Your task to perform on an android device: turn notification dots off Image 0: 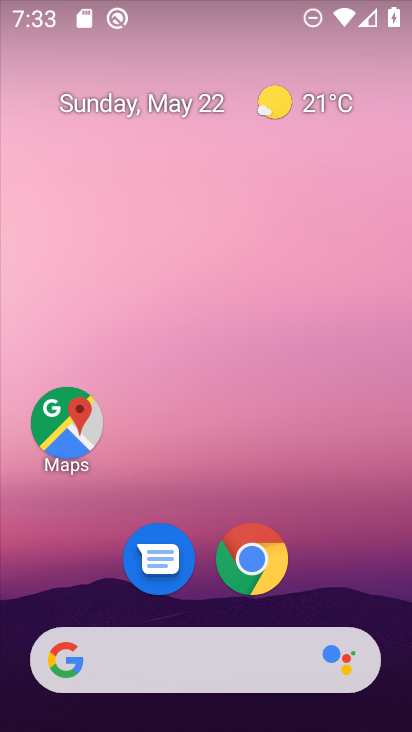
Step 0: drag from (224, 689) to (275, 188)
Your task to perform on an android device: turn notification dots off Image 1: 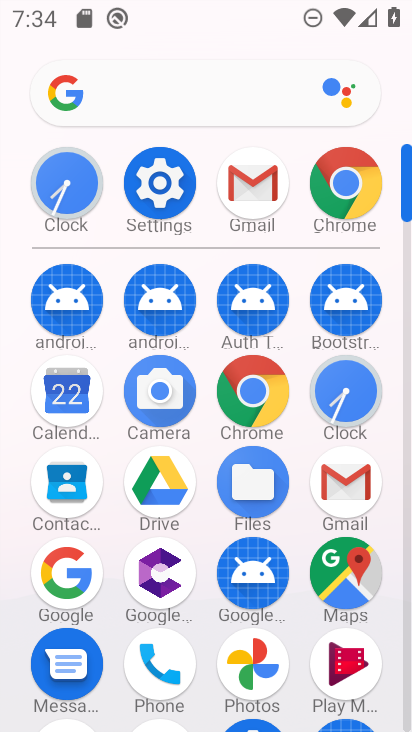
Step 1: click (165, 187)
Your task to perform on an android device: turn notification dots off Image 2: 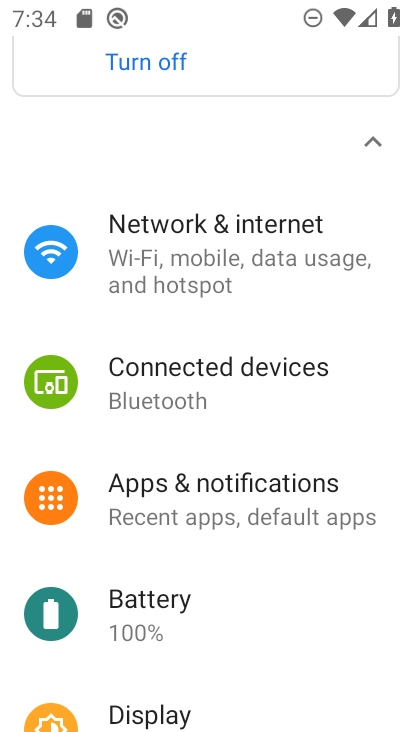
Step 2: drag from (180, 155) to (265, 389)
Your task to perform on an android device: turn notification dots off Image 3: 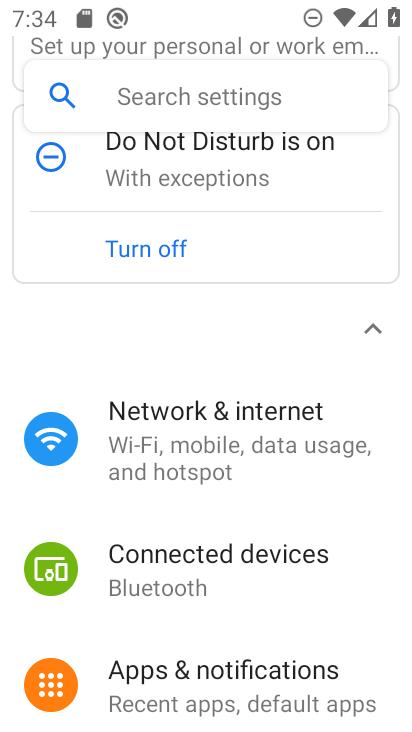
Step 3: click (170, 103)
Your task to perform on an android device: turn notification dots off Image 4: 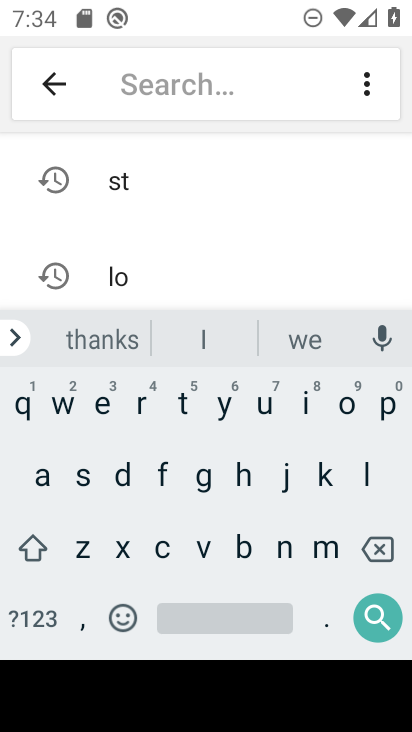
Step 4: click (122, 471)
Your task to perform on an android device: turn notification dots off Image 5: 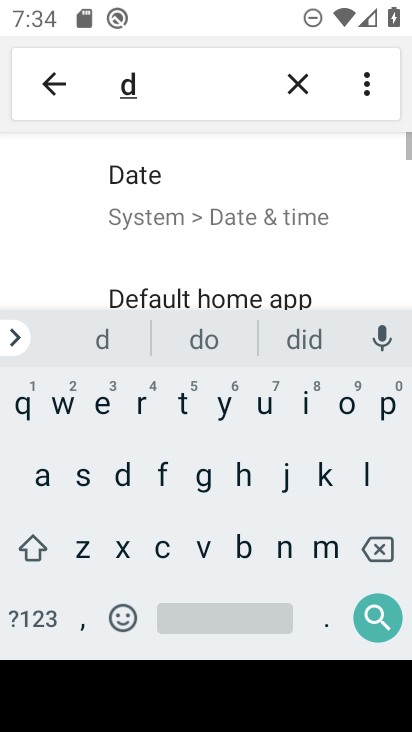
Step 5: click (350, 405)
Your task to perform on an android device: turn notification dots off Image 6: 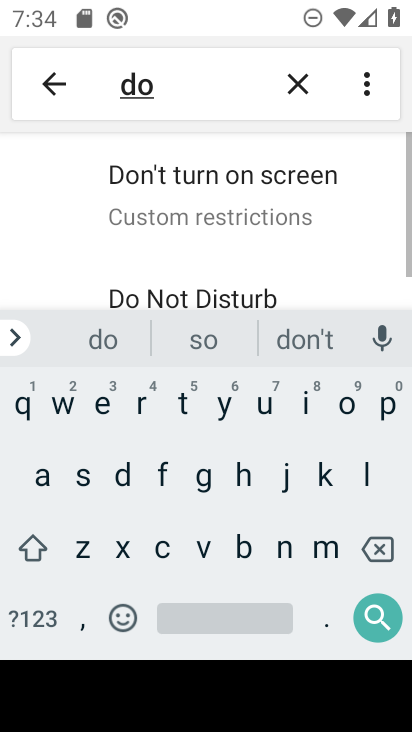
Step 6: click (182, 415)
Your task to perform on an android device: turn notification dots off Image 7: 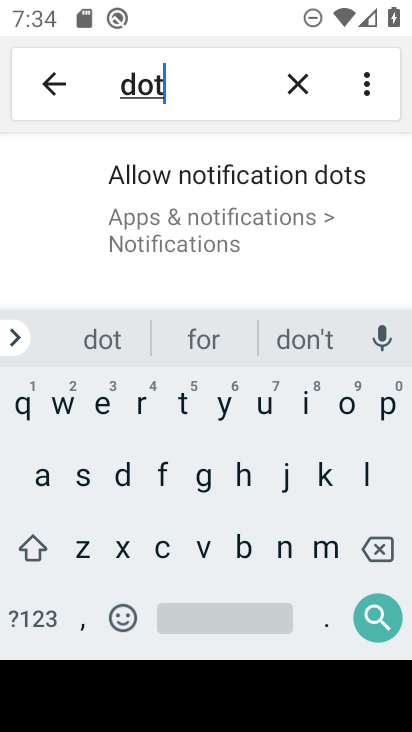
Step 7: click (261, 219)
Your task to perform on an android device: turn notification dots off Image 8: 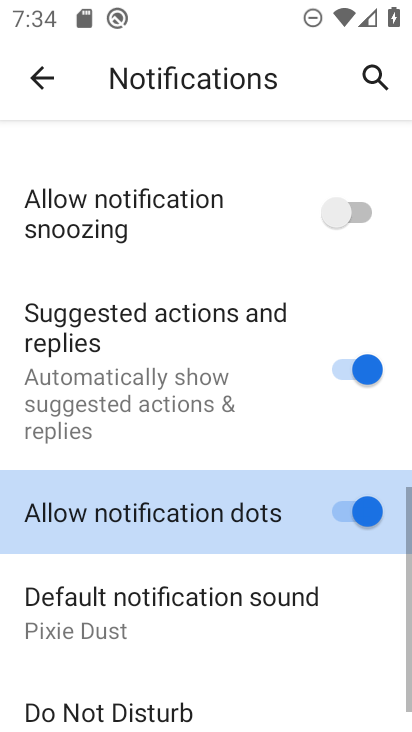
Step 8: click (372, 518)
Your task to perform on an android device: turn notification dots off Image 9: 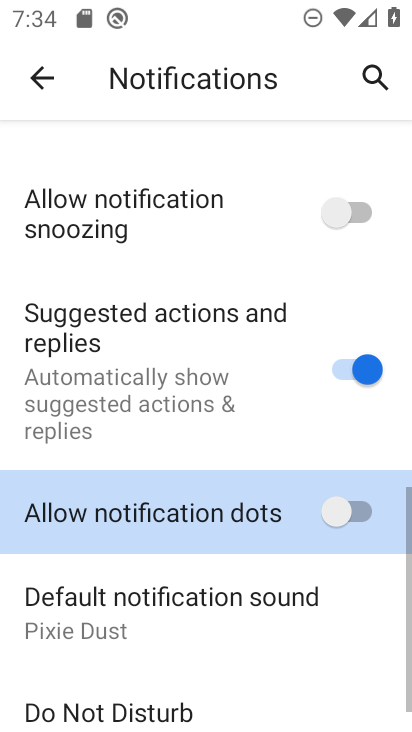
Step 9: task complete